Your task to perform on an android device: Open network settings Image 0: 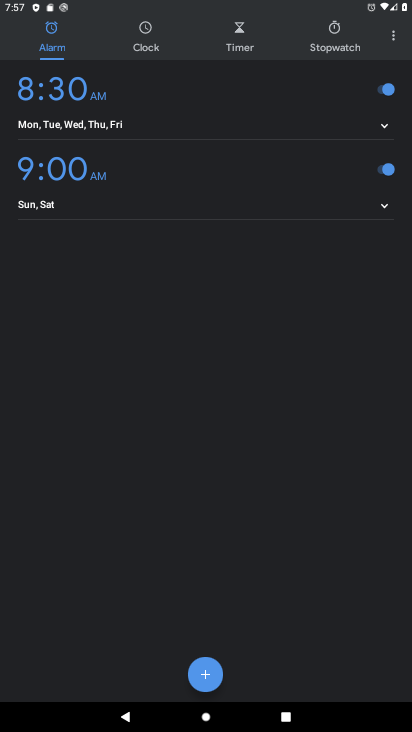
Step 0: press home button
Your task to perform on an android device: Open network settings Image 1: 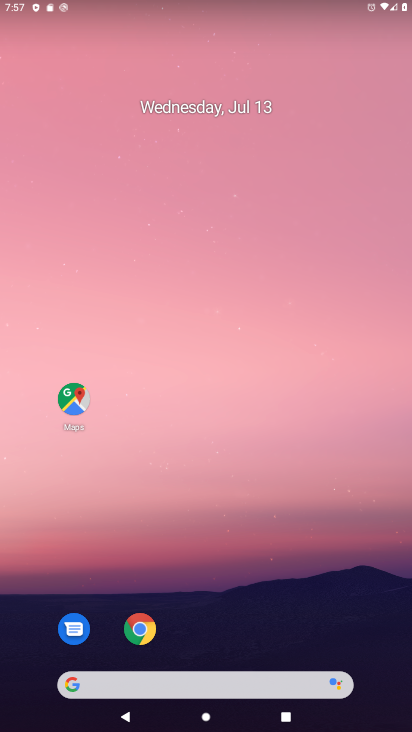
Step 1: drag from (257, 615) to (247, 49)
Your task to perform on an android device: Open network settings Image 2: 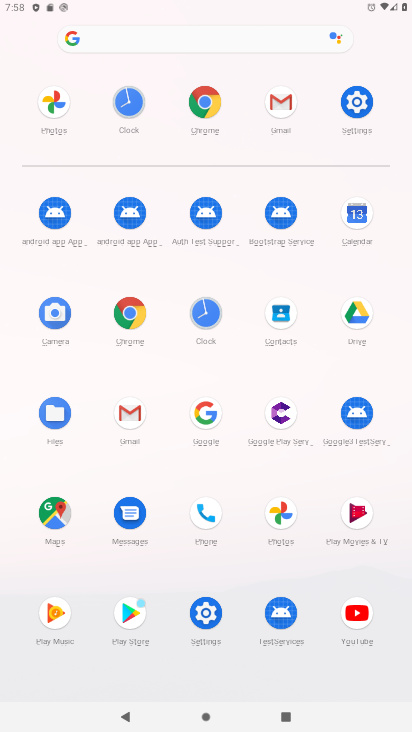
Step 2: click (344, 98)
Your task to perform on an android device: Open network settings Image 3: 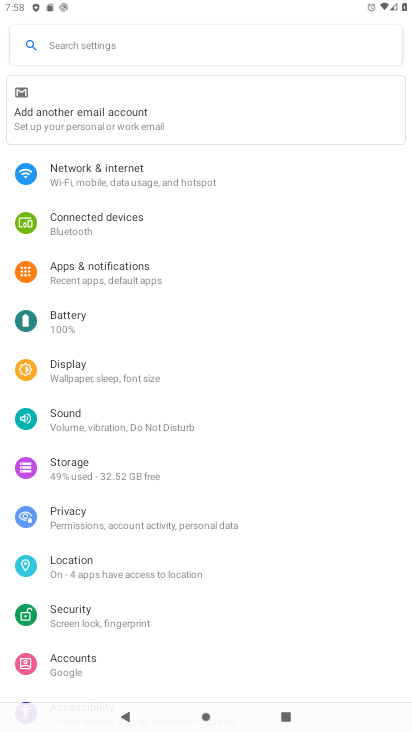
Step 3: click (120, 169)
Your task to perform on an android device: Open network settings Image 4: 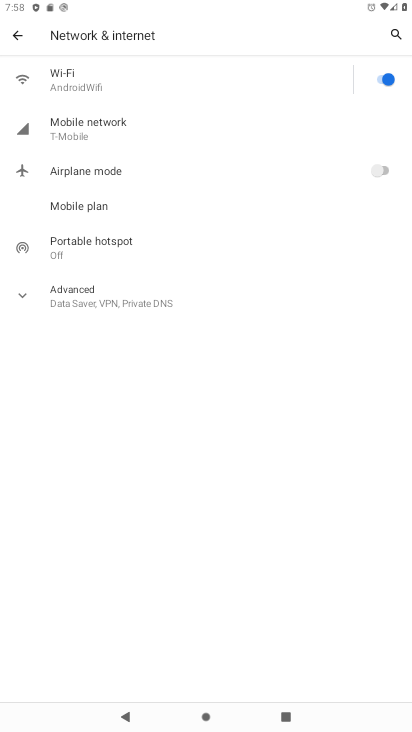
Step 4: click (109, 127)
Your task to perform on an android device: Open network settings Image 5: 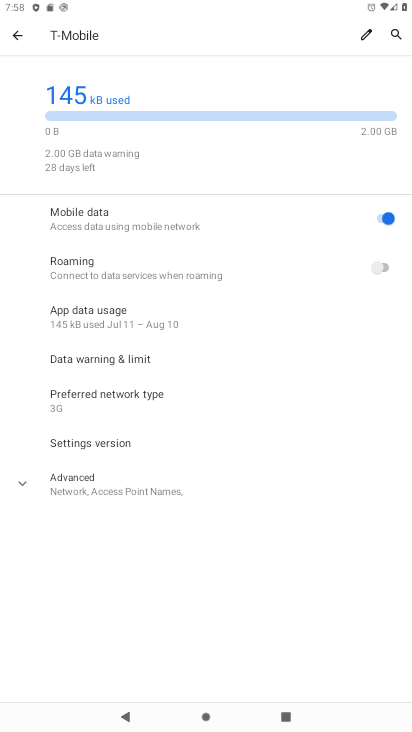
Step 5: task complete